Your task to perform on an android device: Open notification settings Image 0: 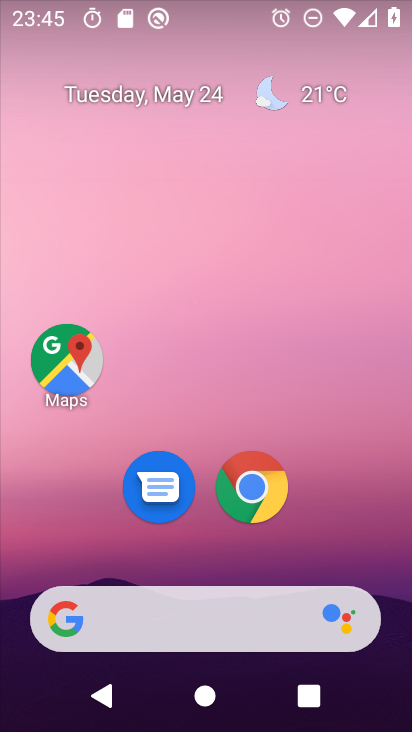
Step 0: drag from (322, 514) to (287, 1)
Your task to perform on an android device: Open notification settings Image 1: 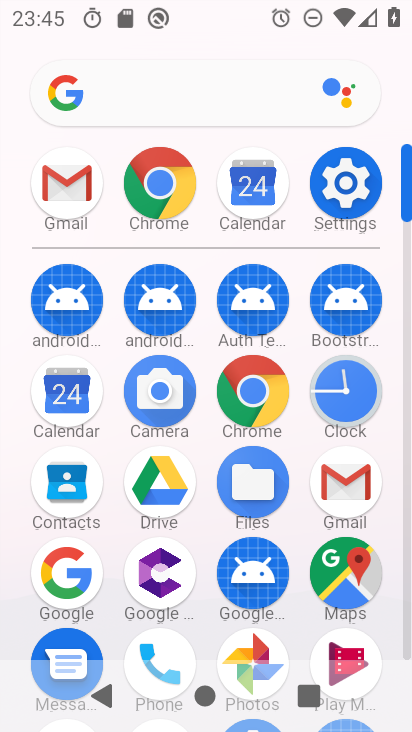
Step 1: click (348, 192)
Your task to perform on an android device: Open notification settings Image 2: 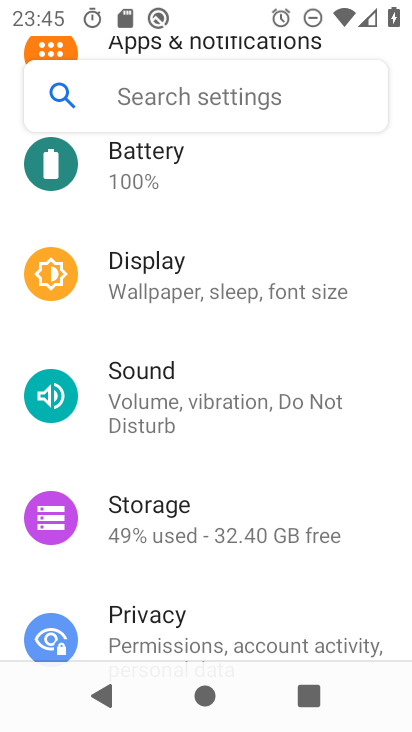
Step 2: drag from (266, 265) to (245, 572)
Your task to perform on an android device: Open notification settings Image 3: 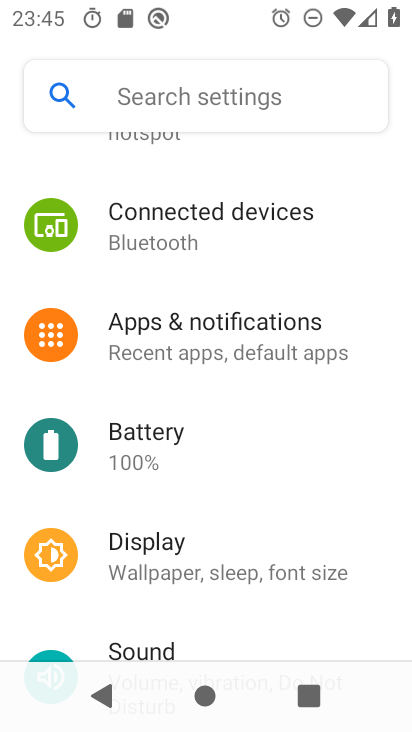
Step 3: click (199, 355)
Your task to perform on an android device: Open notification settings Image 4: 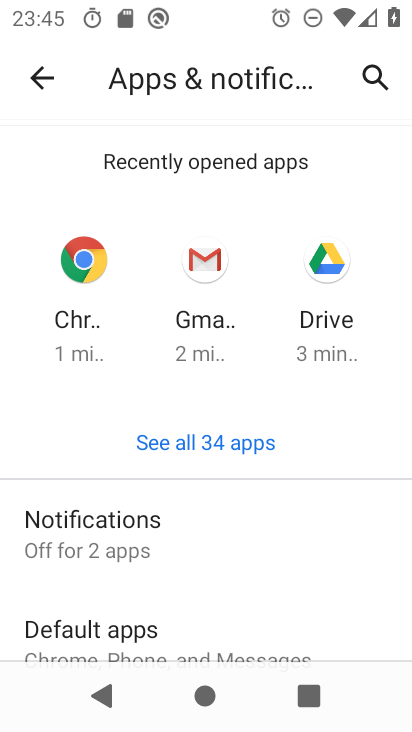
Step 4: task complete